Your task to perform on an android device: What's on my calendar today? Image 0: 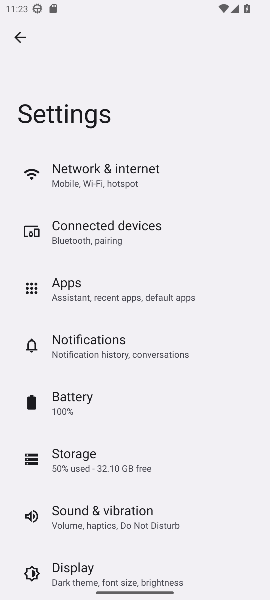
Step 0: press home button
Your task to perform on an android device: What's on my calendar today? Image 1: 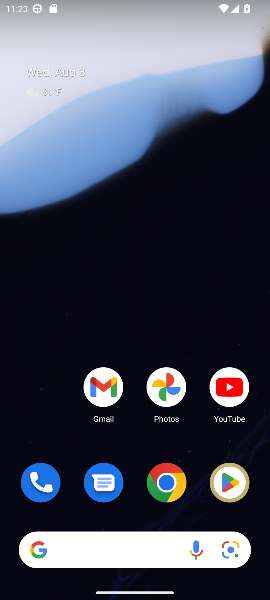
Step 1: drag from (74, 519) to (84, 144)
Your task to perform on an android device: What's on my calendar today? Image 2: 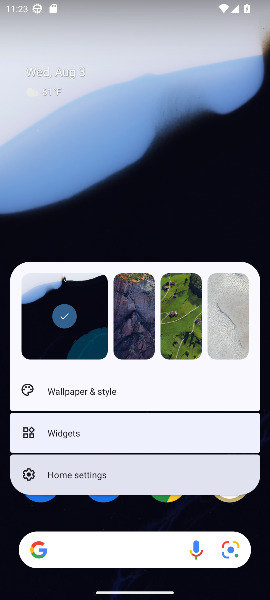
Step 2: click (106, 138)
Your task to perform on an android device: What's on my calendar today? Image 3: 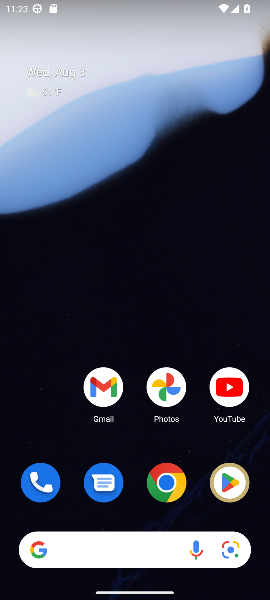
Step 3: drag from (67, 521) to (87, 187)
Your task to perform on an android device: What's on my calendar today? Image 4: 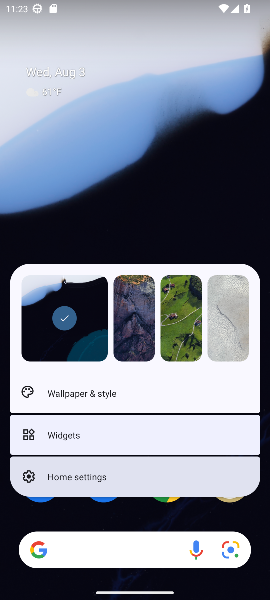
Step 4: click (87, 187)
Your task to perform on an android device: What's on my calendar today? Image 5: 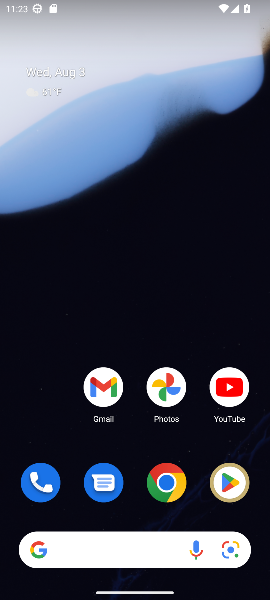
Step 5: drag from (69, 527) to (67, 130)
Your task to perform on an android device: What's on my calendar today? Image 6: 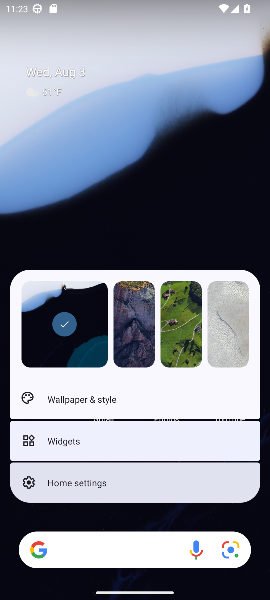
Step 6: click (67, 130)
Your task to perform on an android device: What's on my calendar today? Image 7: 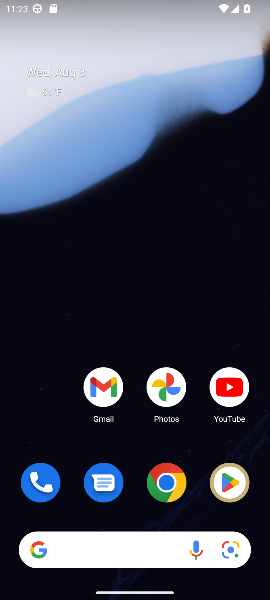
Step 7: task complete